Your task to perform on an android device: toggle notifications settings in the gmail app Image 0: 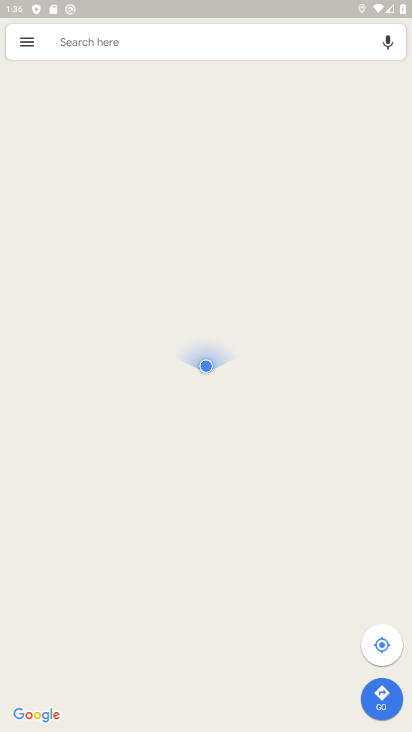
Step 0: press home button
Your task to perform on an android device: toggle notifications settings in the gmail app Image 1: 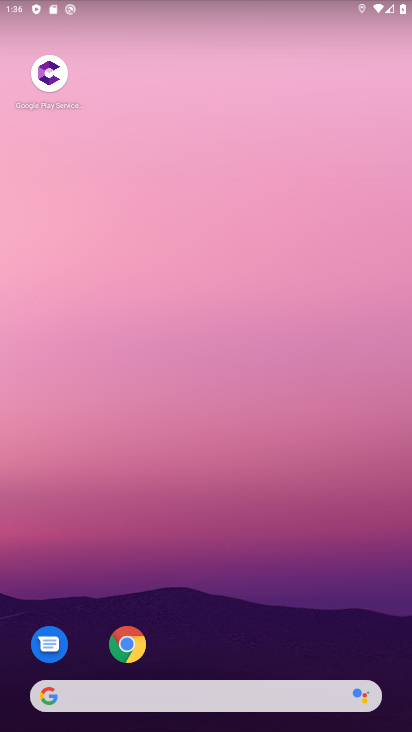
Step 1: drag from (314, 483) to (279, 233)
Your task to perform on an android device: toggle notifications settings in the gmail app Image 2: 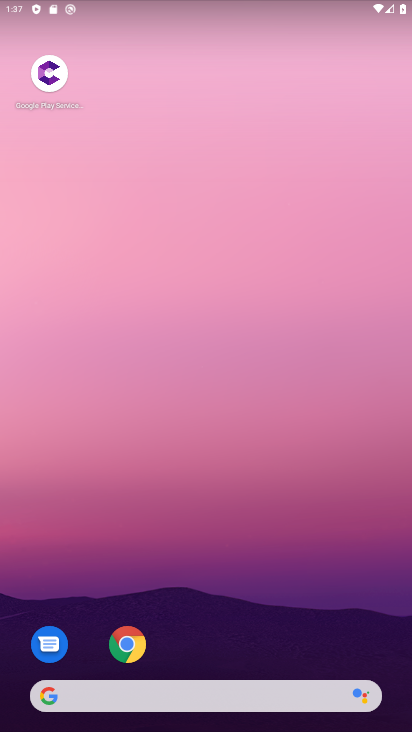
Step 2: drag from (282, 557) to (212, 29)
Your task to perform on an android device: toggle notifications settings in the gmail app Image 3: 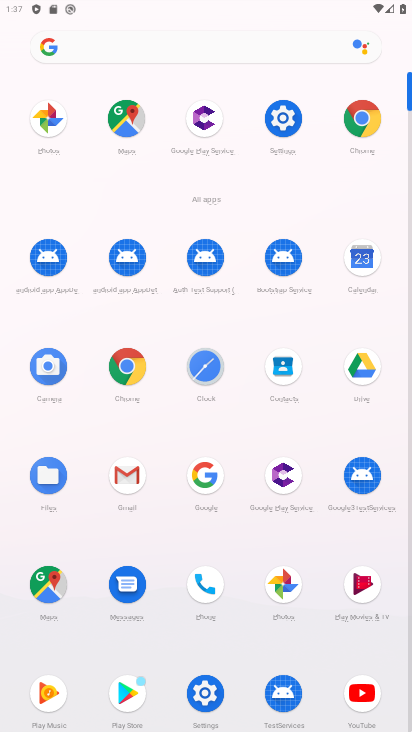
Step 3: click (111, 483)
Your task to perform on an android device: toggle notifications settings in the gmail app Image 4: 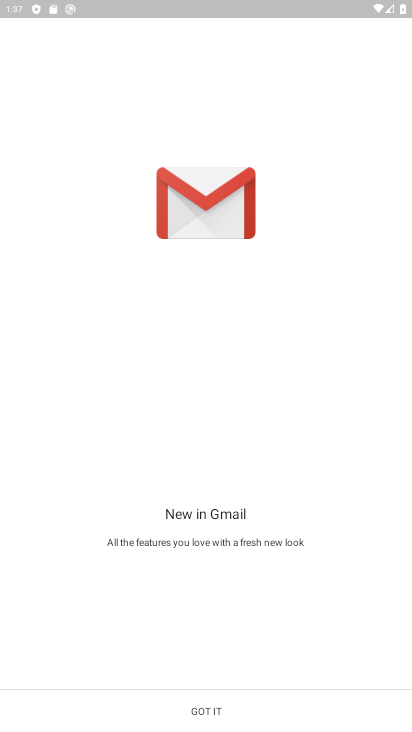
Step 4: click (187, 714)
Your task to perform on an android device: toggle notifications settings in the gmail app Image 5: 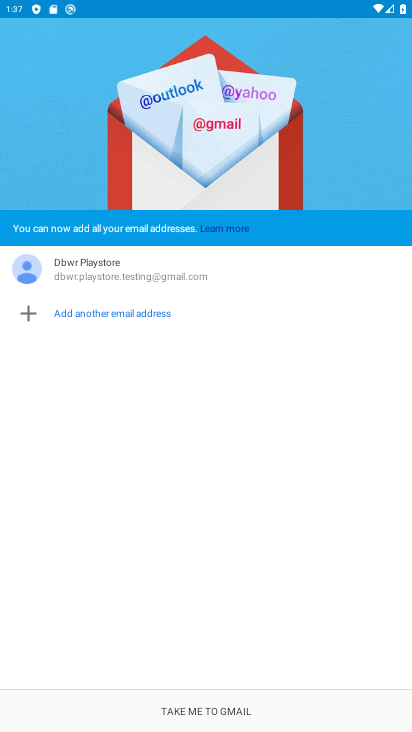
Step 5: click (187, 706)
Your task to perform on an android device: toggle notifications settings in the gmail app Image 6: 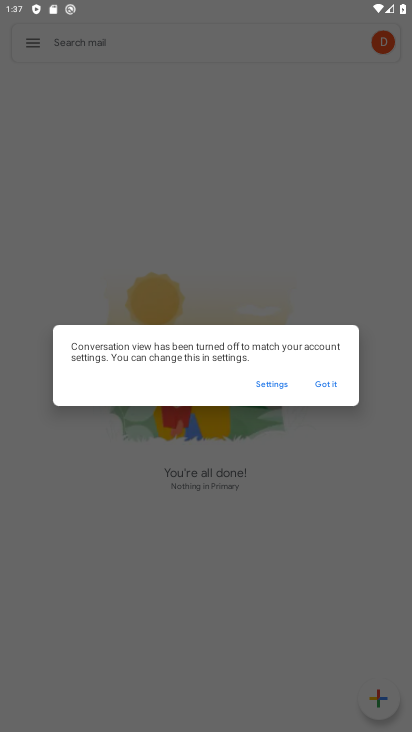
Step 6: click (311, 378)
Your task to perform on an android device: toggle notifications settings in the gmail app Image 7: 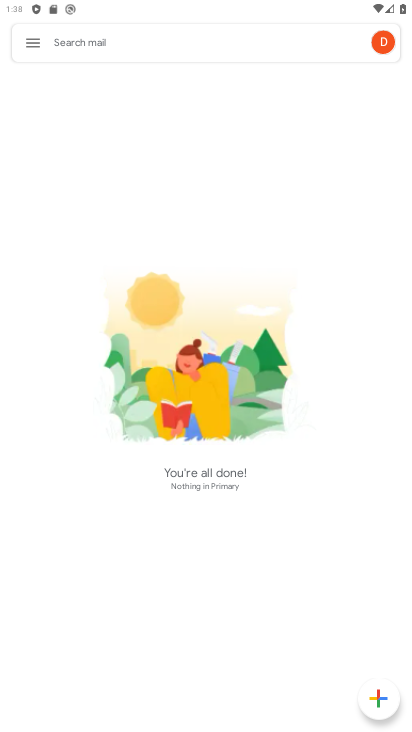
Step 7: click (38, 48)
Your task to perform on an android device: toggle notifications settings in the gmail app Image 8: 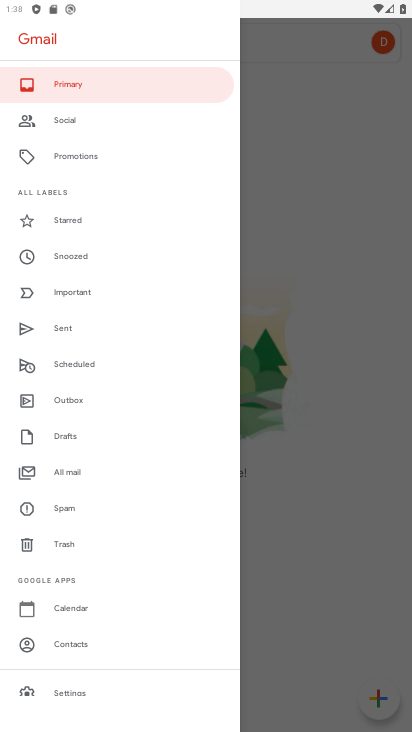
Step 8: drag from (102, 642) to (90, 203)
Your task to perform on an android device: toggle notifications settings in the gmail app Image 9: 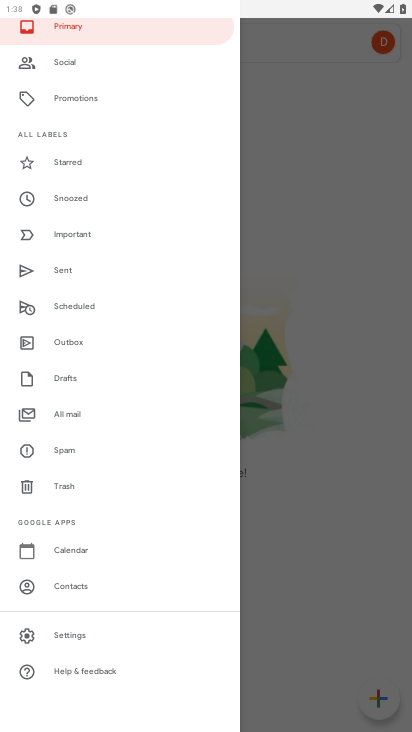
Step 9: click (59, 635)
Your task to perform on an android device: toggle notifications settings in the gmail app Image 10: 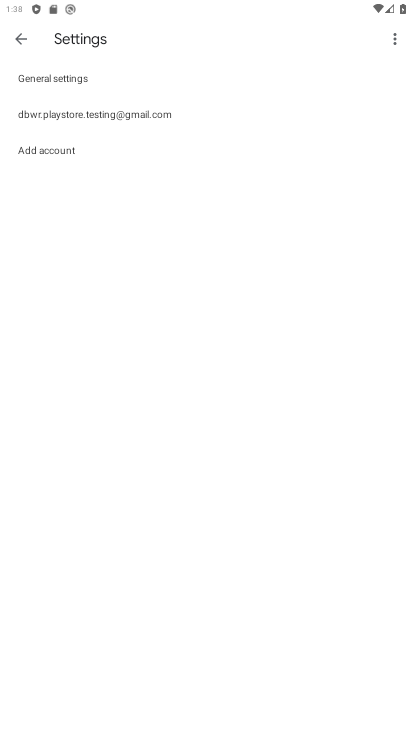
Step 10: click (68, 122)
Your task to perform on an android device: toggle notifications settings in the gmail app Image 11: 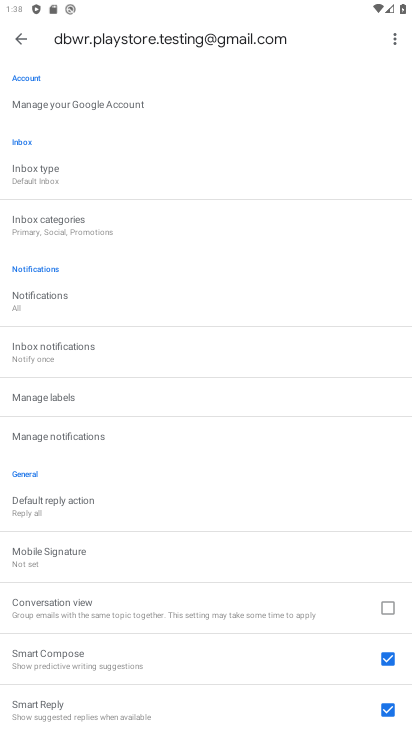
Step 11: click (69, 300)
Your task to perform on an android device: toggle notifications settings in the gmail app Image 12: 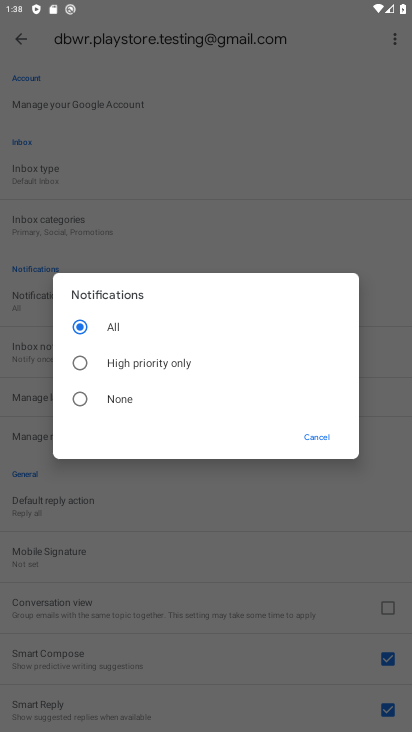
Step 12: click (115, 368)
Your task to perform on an android device: toggle notifications settings in the gmail app Image 13: 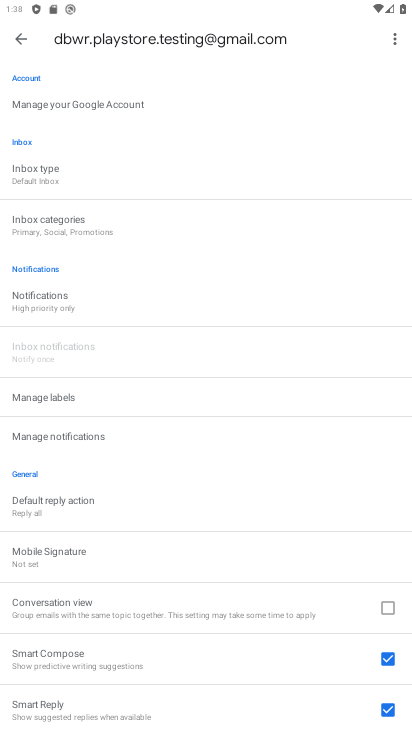
Step 13: task complete